Your task to perform on an android device: What is the recent news? Image 0: 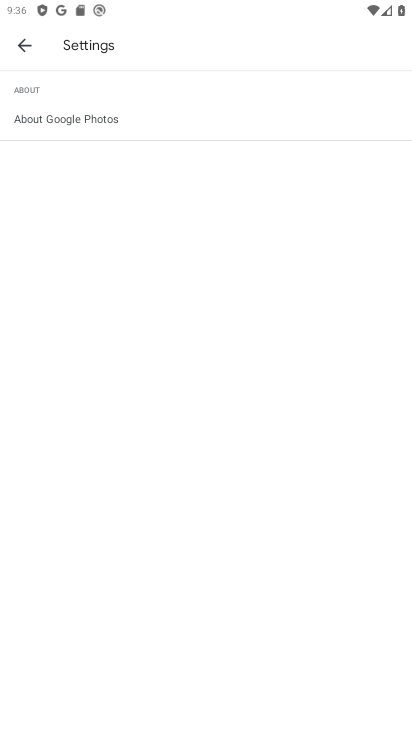
Step 0: press home button
Your task to perform on an android device: What is the recent news? Image 1: 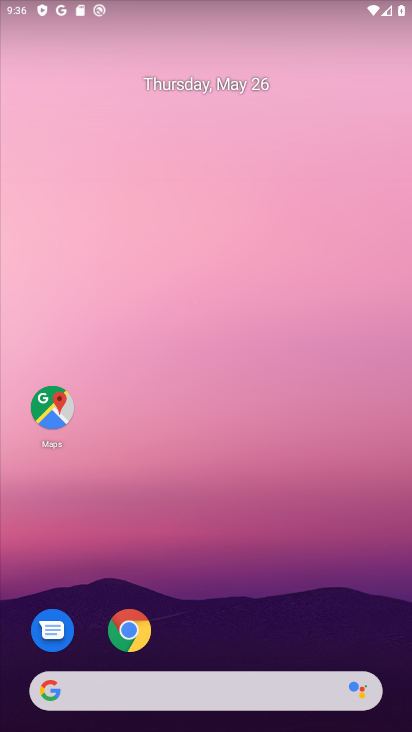
Step 1: click (190, 667)
Your task to perform on an android device: What is the recent news? Image 2: 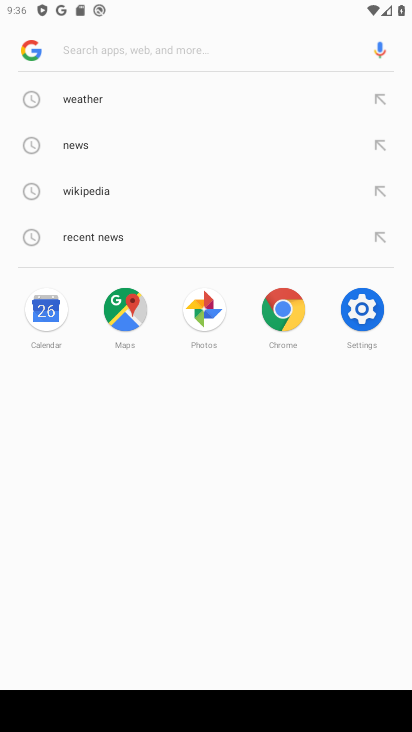
Step 2: click (79, 146)
Your task to perform on an android device: What is the recent news? Image 3: 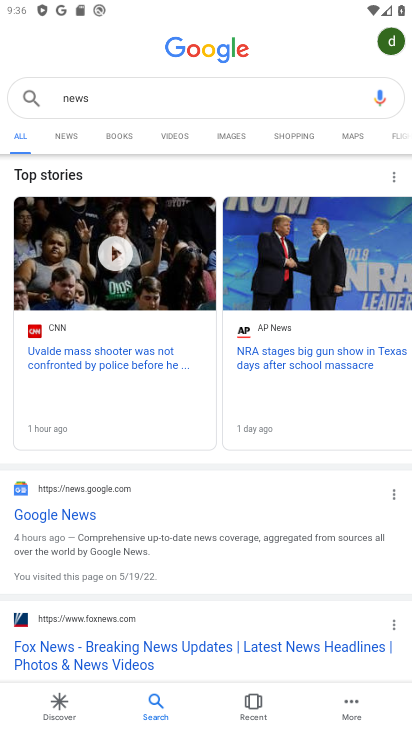
Step 3: click (68, 136)
Your task to perform on an android device: What is the recent news? Image 4: 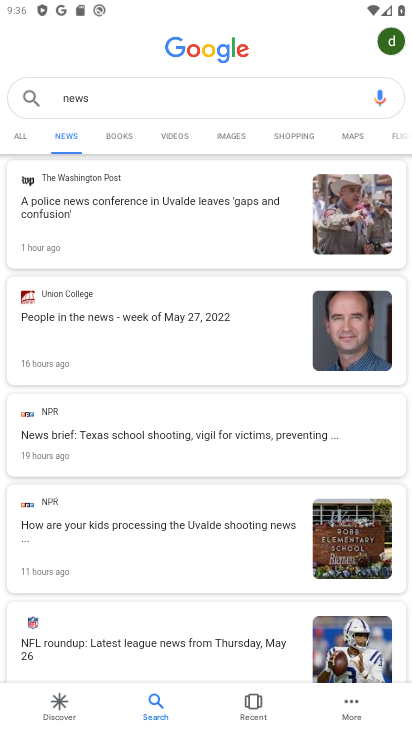
Step 4: task complete